Your task to perform on an android device: Open maps Image 0: 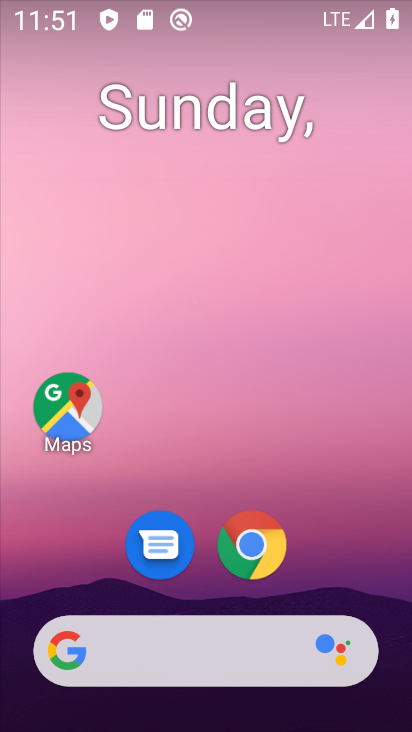
Step 0: drag from (354, 576) to (354, 131)
Your task to perform on an android device: Open maps Image 1: 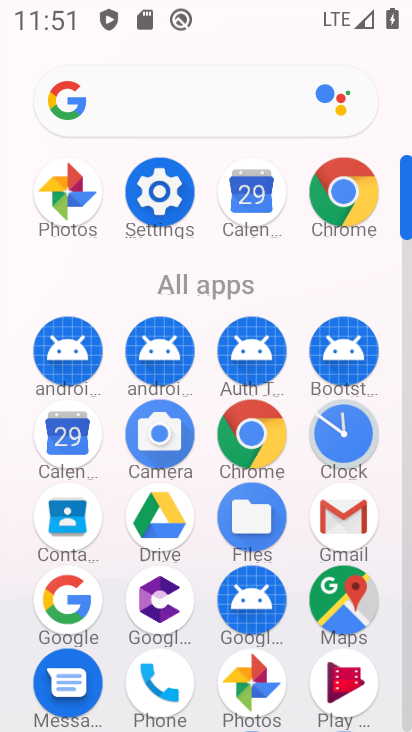
Step 1: click (340, 608)
Your task to perform on an android device: Open maps Image 2: 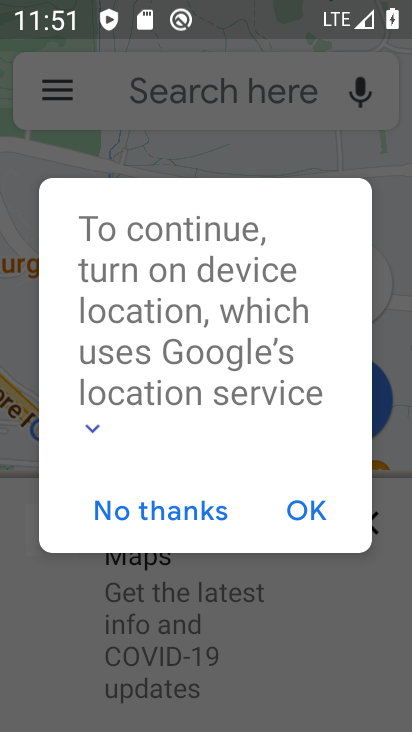
Step 2: click (177, 516)
Your task to perform on an android device: Open maps Image 3: 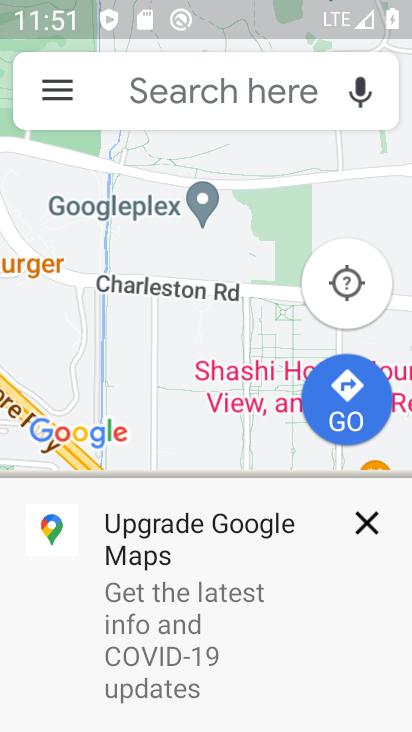
Step 3: task complete